Your task to perform on an android device: What's on my calendar today? Image 0: 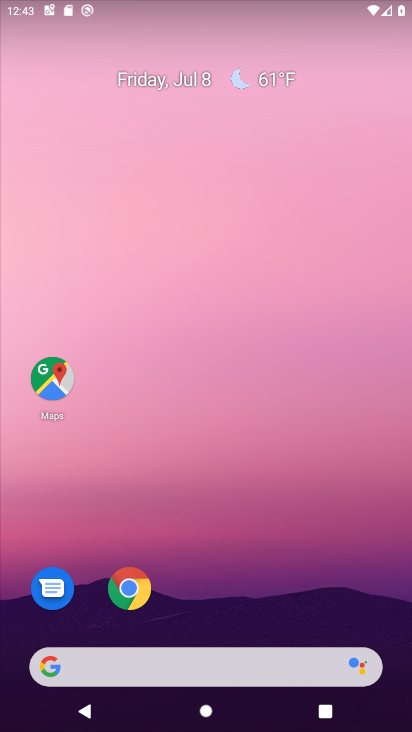
Step 0: click (198, 649)
Your task to perform on an android device: What's on my calendar today? Image 1: 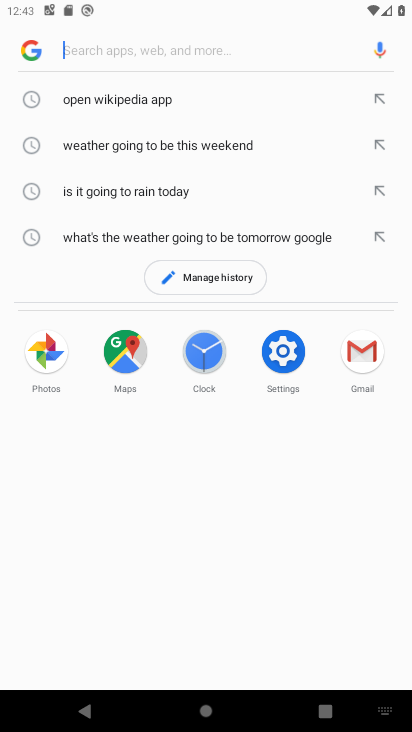
Step 1: press home button
Your task to perform on an android device: What's on my calendar today? Image 2: 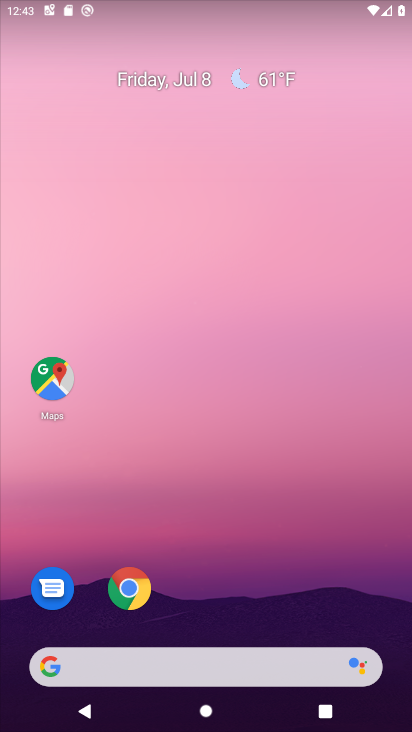
Step 2: drag from (286, 534) to (374, 63)
Your task to perform on an android device: What's on my calendar today? Image 3: 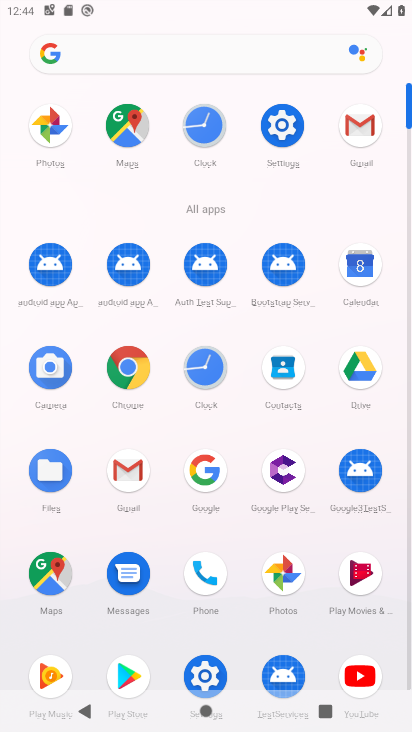
Step 3: click (363, 266)
Your task to perform on an android device: What's on my calendar today? Image 4: 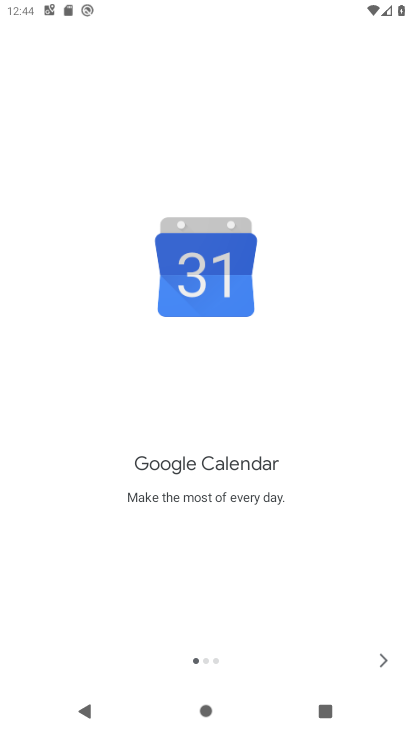
Step 4: click (381, 649)
Your task to perform on an android device: What's on my calendar today? Image 5: 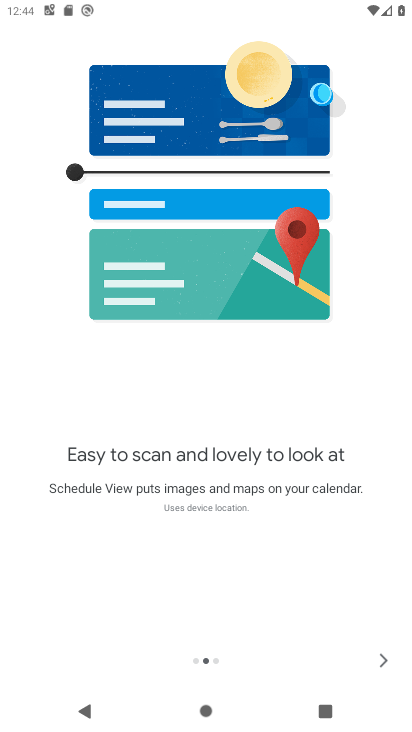
Step 5: click (383, 648)
Your task to perform on an android device: What's on my calendar today? Image 6: 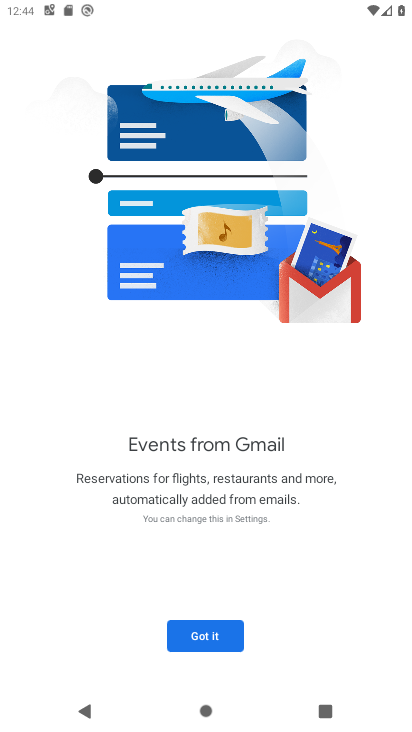
Step 6: click (199, 629)
Your task to perform on an android device: What's on my calendar today? Image 7: 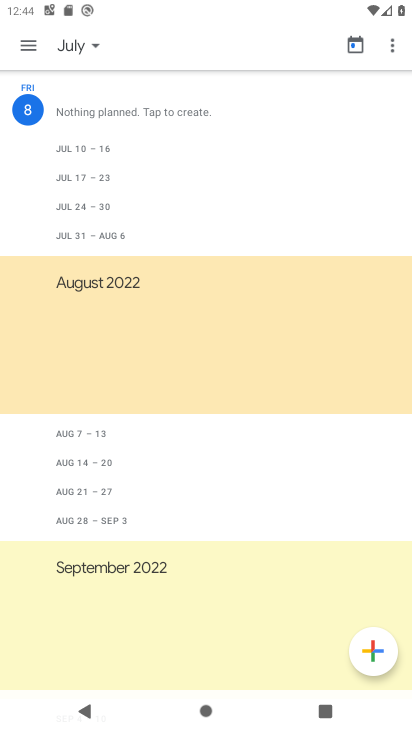
Step 7: click (25, 43)
Your task to perform on an android device: What's on my calendar today? Image 8: 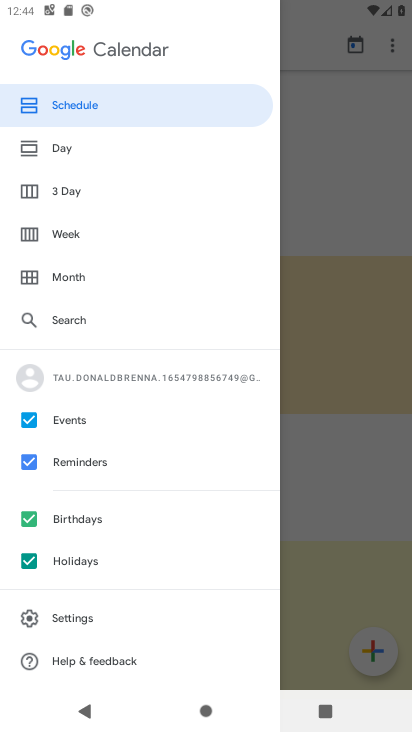
Step 8: click (349, 167)
Your task to perform on an android device: What's on my calendar today? Image 9: 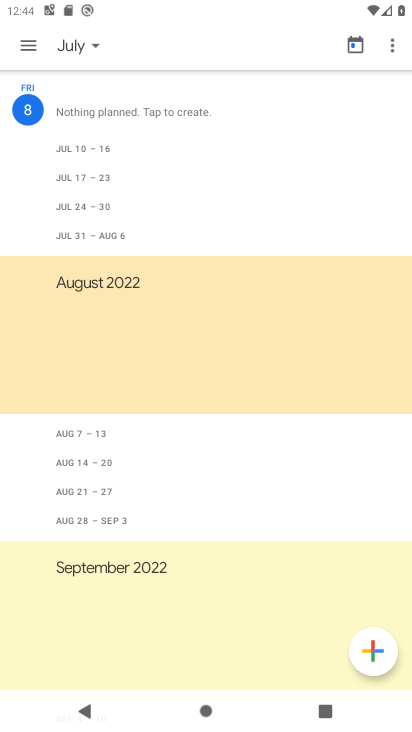
Step 9: click (29, 108)
Your task to perform on an android device: What's on my calendar today? Image 10: 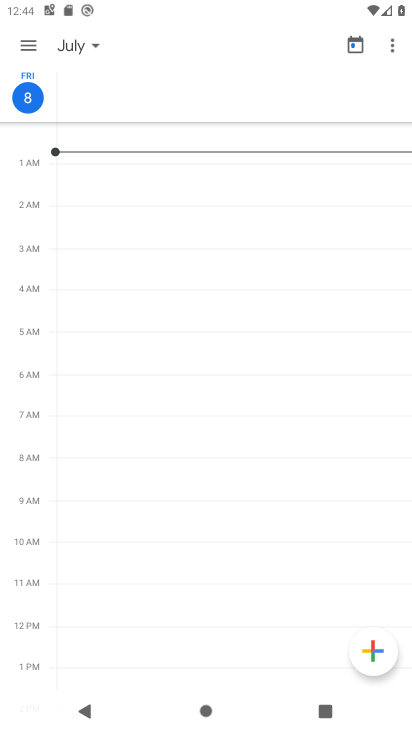
Step 10: task complete